Your task to perform on an android device: Open Google Maps Image 0: 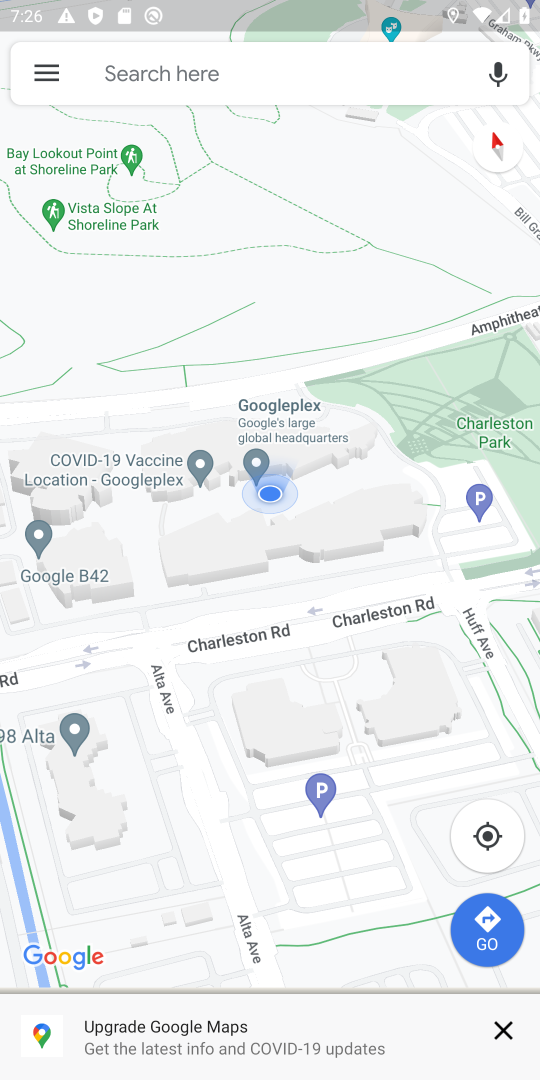
Step 0: press home button
Your task to perform on an android device: Open Google Maps Image 1: 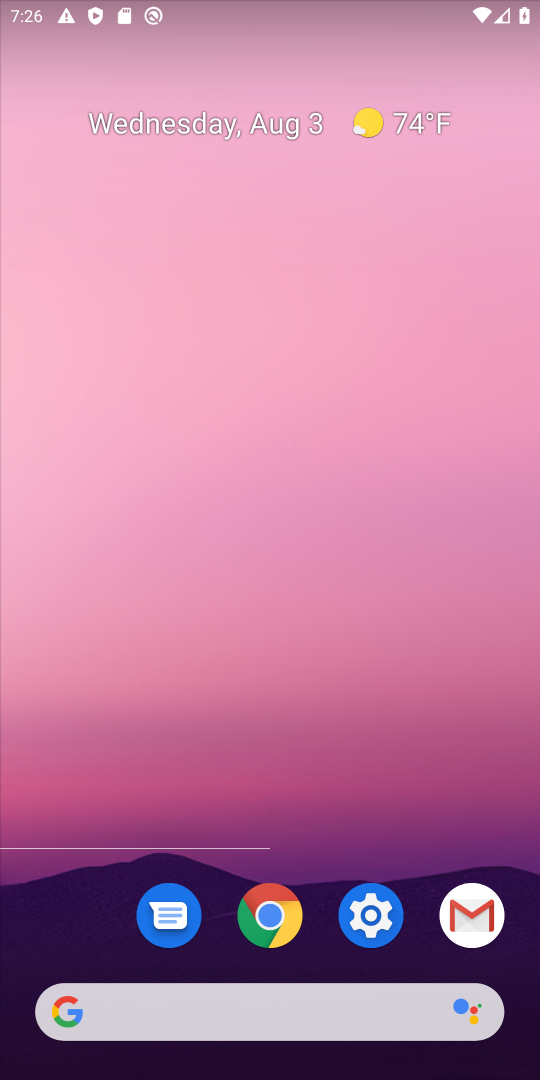
Step 1: drag from (349, 986) to (252, 113)
Your task to perform on an android device: Open Google Maps Image 2: 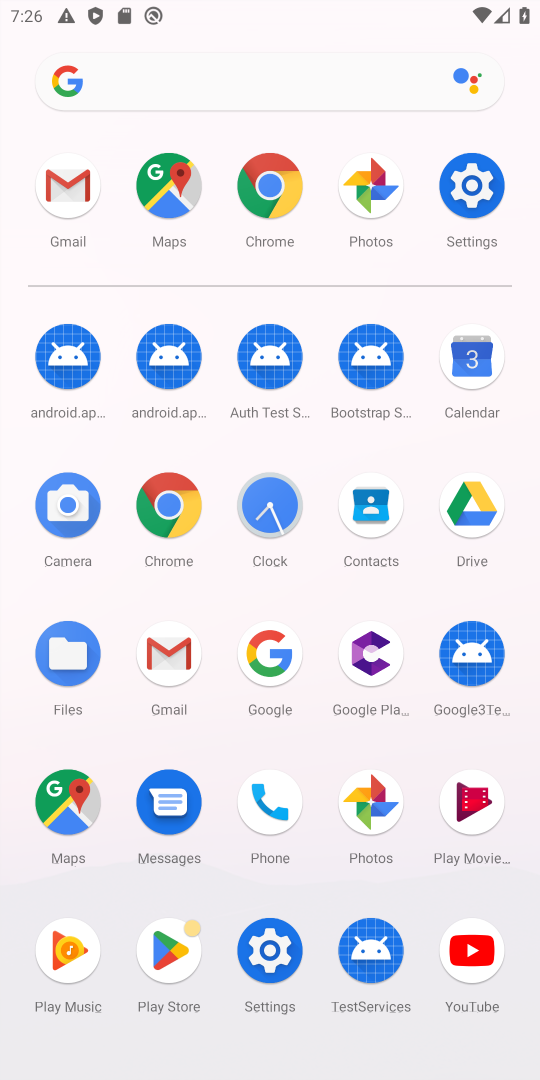
Step 2: click (162, 183)
Your task to perform on an android device: Open Google Maps Image 3: 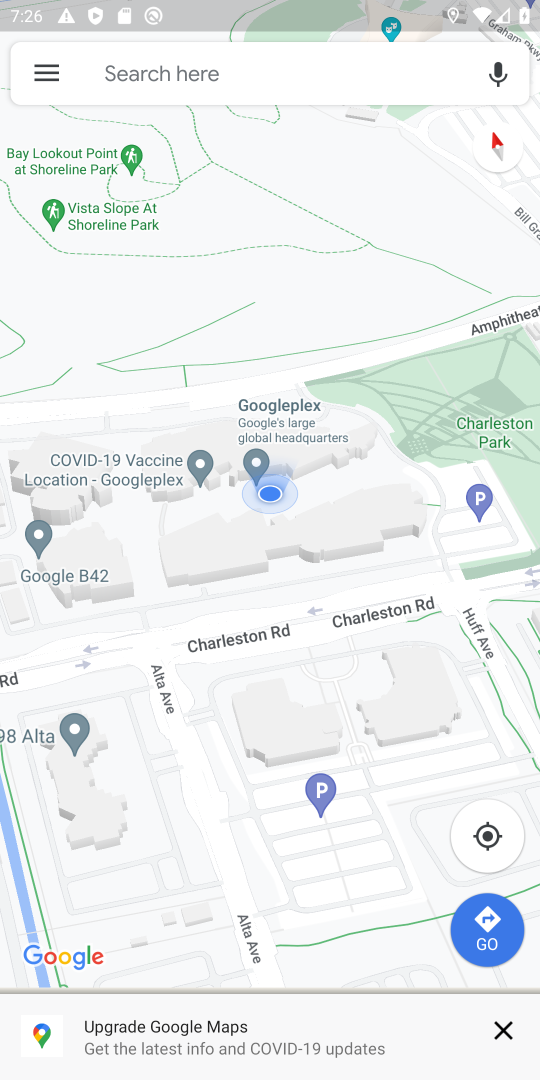
Step 3: click (479, 836)
Your task to perform on an android device: Open Google Maps Image 4: 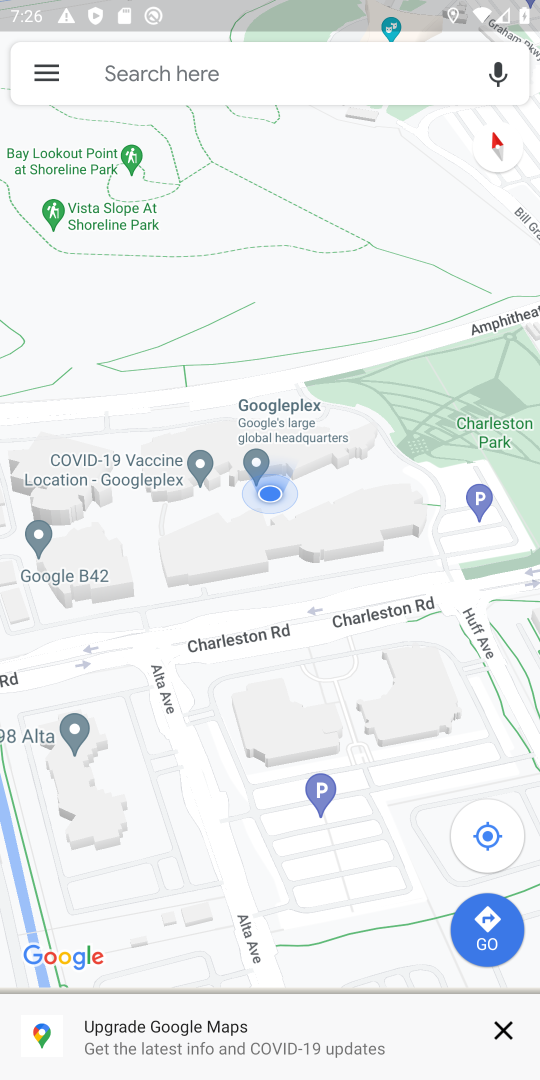
Step 4: click (505, 835)
Your task to perform on an android device: Open Google Maps Image 5: 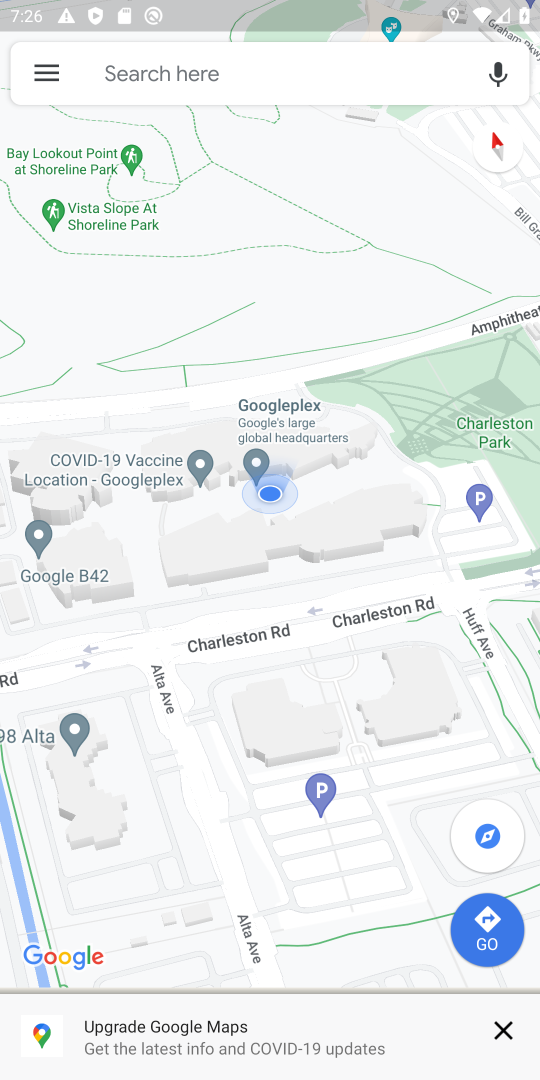
Step 5: task complete